Your task to perform on an android device: Open Yahoo.com Image 0: 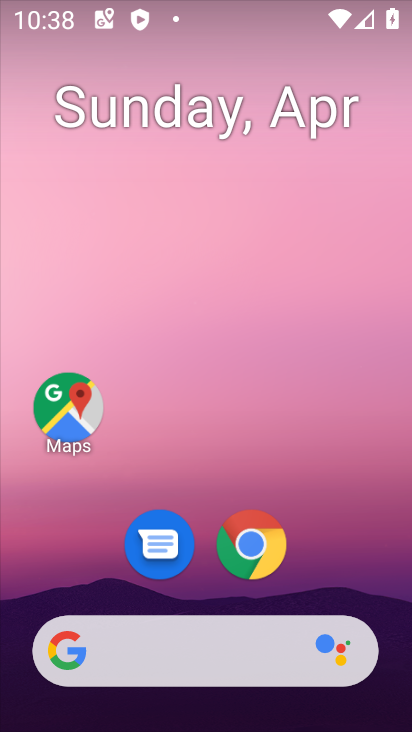
Step 0: click (274, 543)
Your task to perform on an android device: Open Yahoo.com Image 1: 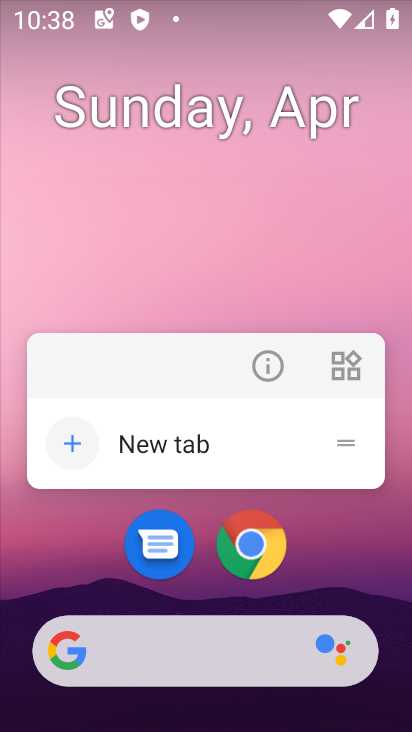
Step 1: click (246, 556)
Your task to perform on an android device: Open Yahoo.com Image 2: 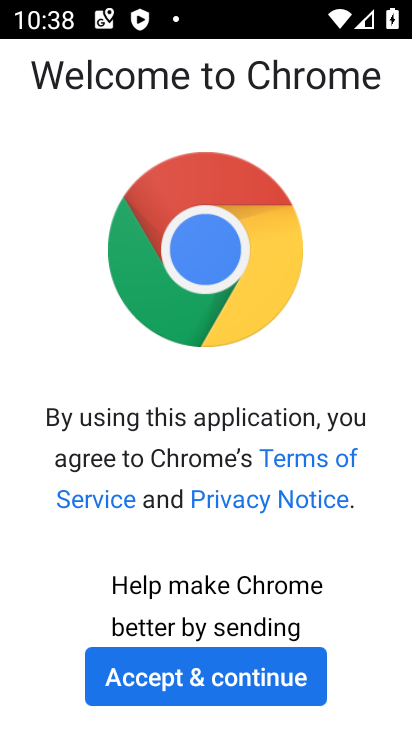
Step 2: click (186, 670)
Your task to perform on an android device: Open Yahoo.com Image 3: 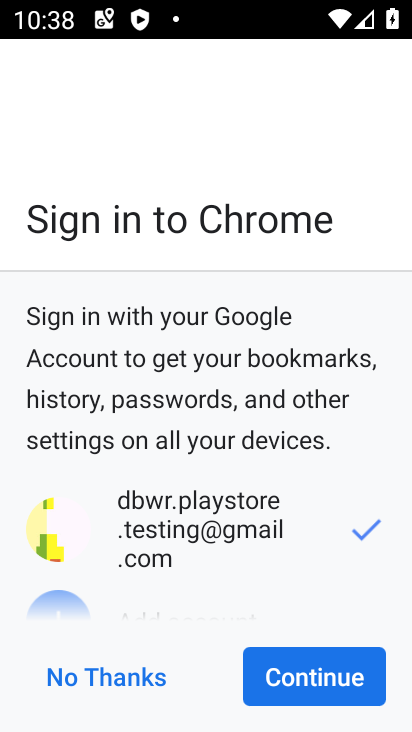
Step 3: click (303, 677)
Your task to perform on an android device: Open Yahoo.com Image 4: 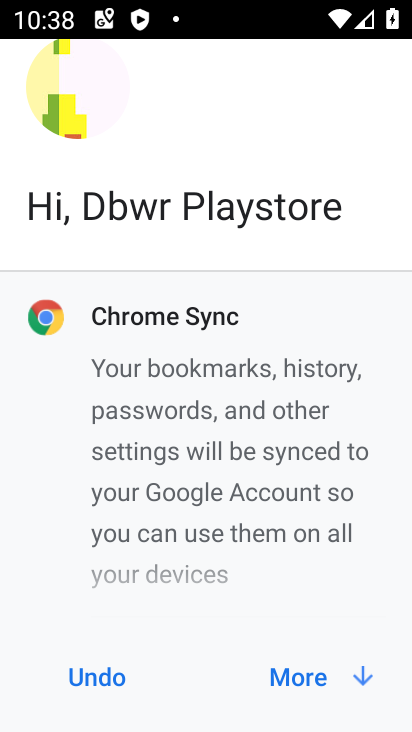
Step 4: click (303, 680)
Your task to perform on an android device: Open Yahoo.com Image 5: 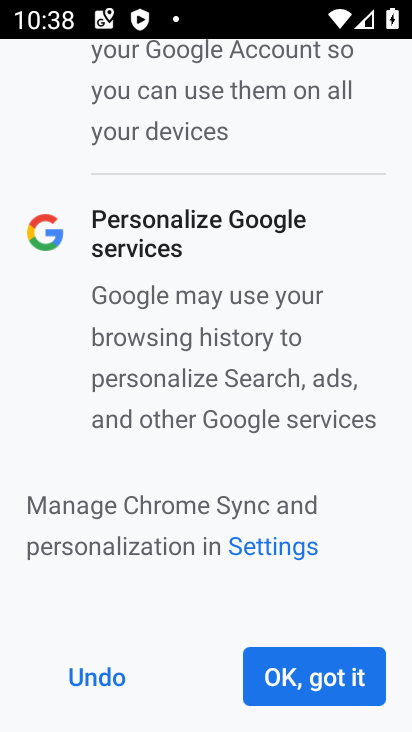
Step 5: click (303, 680)
Your task to perform on an android device: Open Yahoo.com Image 6: 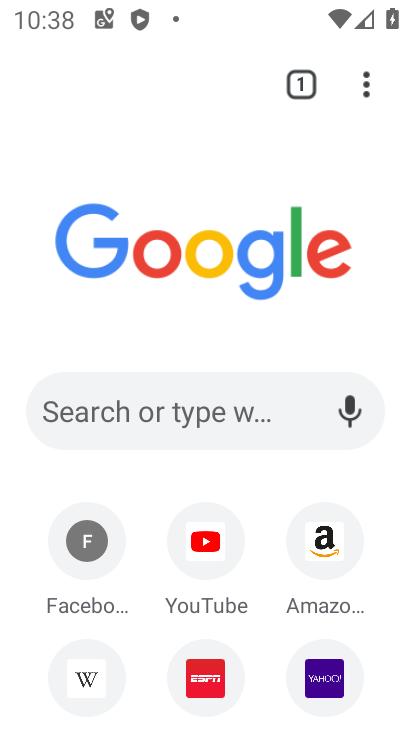
Step 6: click (321, 688)
Your task to perform on an android device: Open Yahoo.com Image 7: 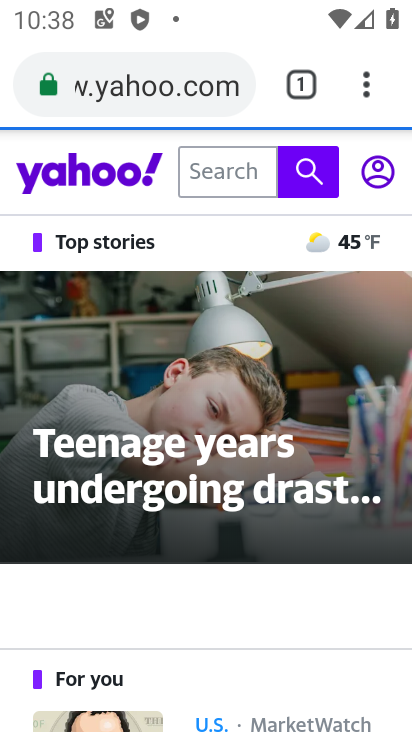
Step 7: task complete